Your task to perform on an android device: Open settings Image 0: 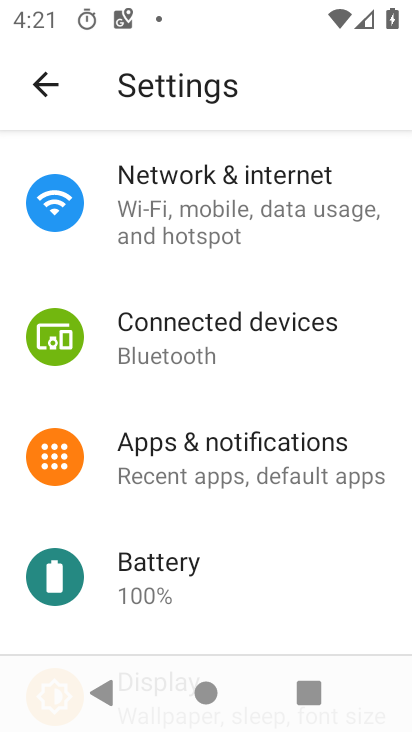
Step 0: press home button
Your task to perform on an android device: Open settings Image 1: 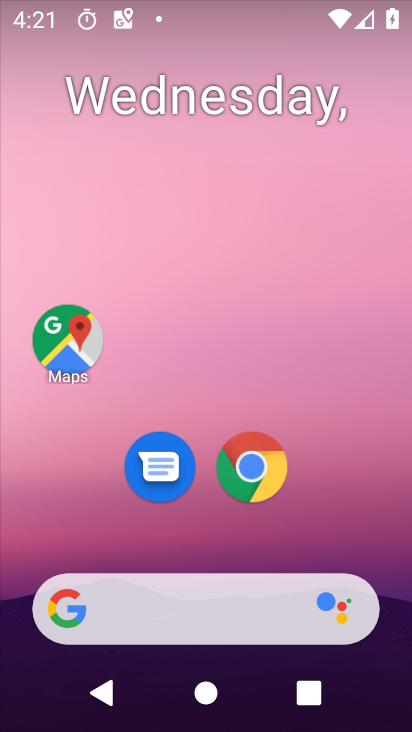
Step 1: drag from (354, 529) to (108, 1)
Your task to perform on an android device: Open settings Image 2: 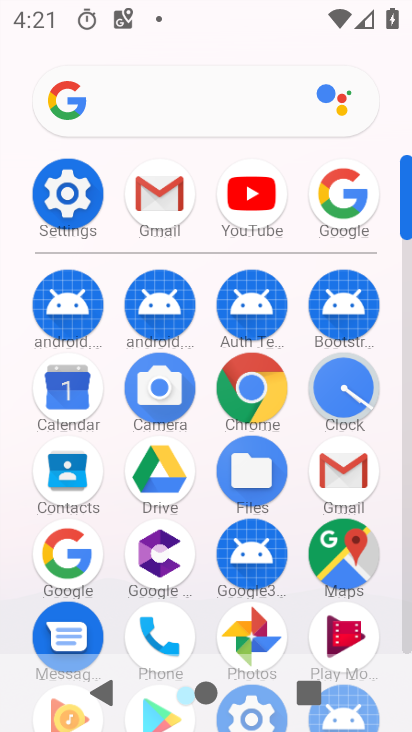
Step 2: click (59, 175)
Your task to perform on an android device: Open settings Image 3: 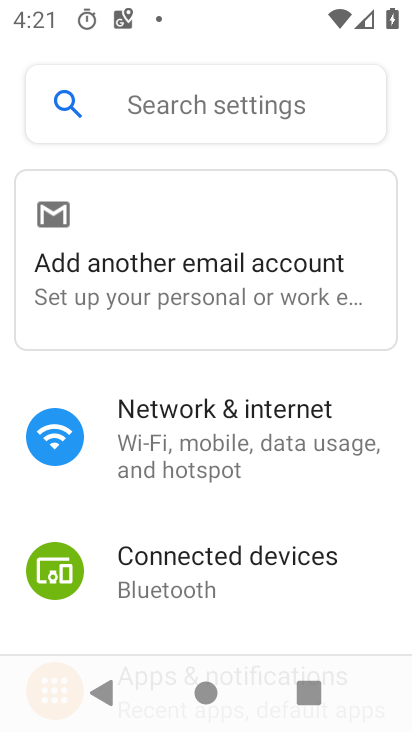
Step 3: task complete